Your task to perform on an android device: Search for the best rated kitchen reno kits on Lowes.com Image 0: 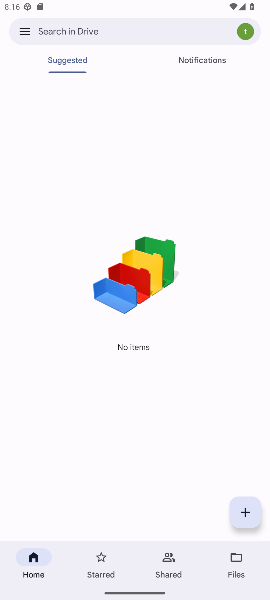
Step 0: press home button
Your task to perform on an android device: Search for the best rated kitchen reno kits on Lowes.com Image 1: 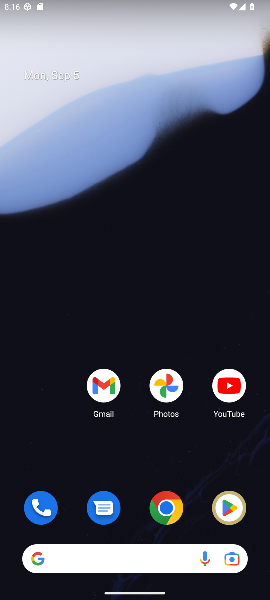
Step 1: click (169, 510)
Your task to perform on an android device: Search for the best rated kitchen reno kits on Lowes.com Image 2: 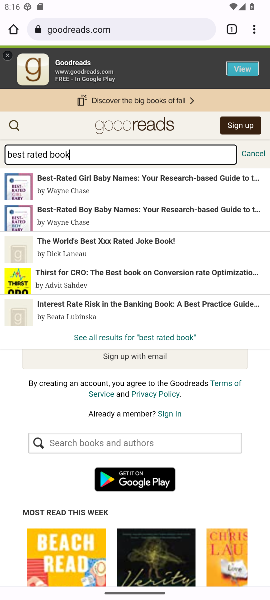
Step 2: click (115, 30)
Your task to perform on an android device: Search for the best rated kitchen reno kits on Lowes.com Image 3: 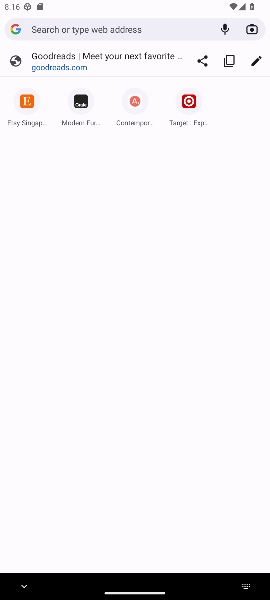
Step 3: type "Lowes.com"
Your task to perform on an android device: Search for the best rated kitchen reno kits on Lowes.com Image 4: 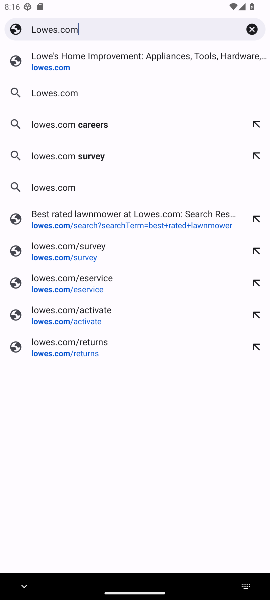
Step 4: click (61, 93)
Your task to perform on an android device: Search for the best rated kitchen reno kits on Lowes.com Image 5: 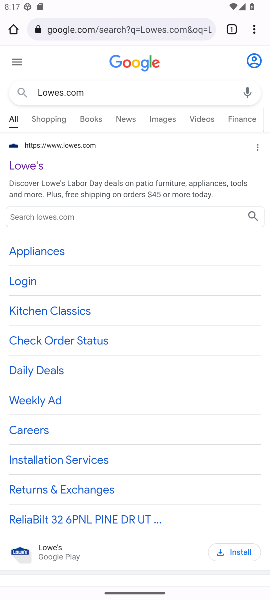
Step 5: click (27, 168)
Your task to perform on an android device: Search for the best rated kitchen reno kits on Lowes.com Image 6: 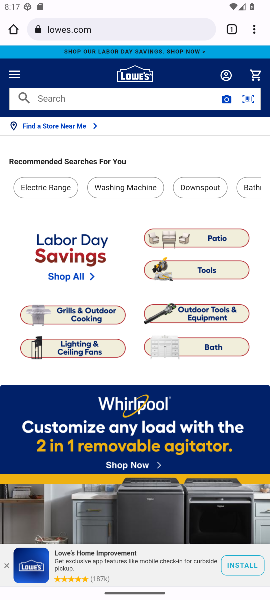
Step 6: click (125, 98)
Your task to perform on an android device: Search for the best rated kitchen reno kits on Lowes.com Image 7: 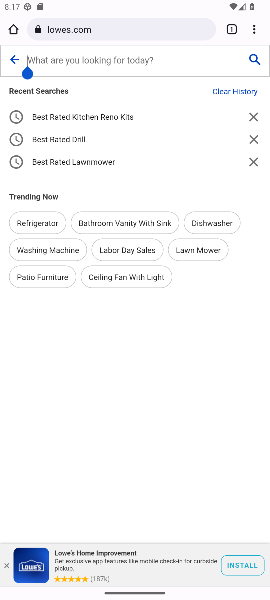
Step 7: type "best rated kitchen reno kits"
Your task to perform on an android device: Search for the best rated kitchen reno kits on Lowes.com Image 8: 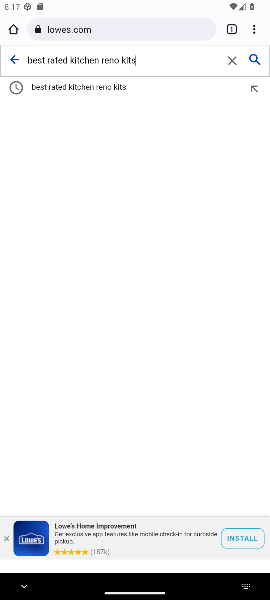
Step 8: click (67, 87)
Your task to perform on an android device: Search for the best rated kitchen reno kits on Lowes.com Image 9: 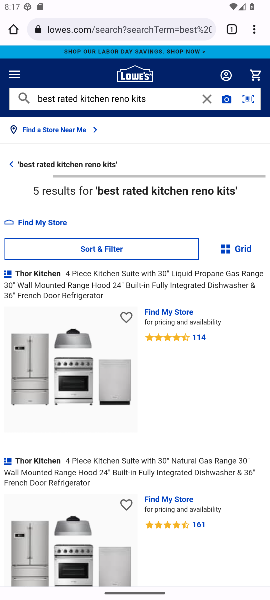
Step 9: task complete